Your task to perform on an android device: open a bookmark in the chrome app Image 0: 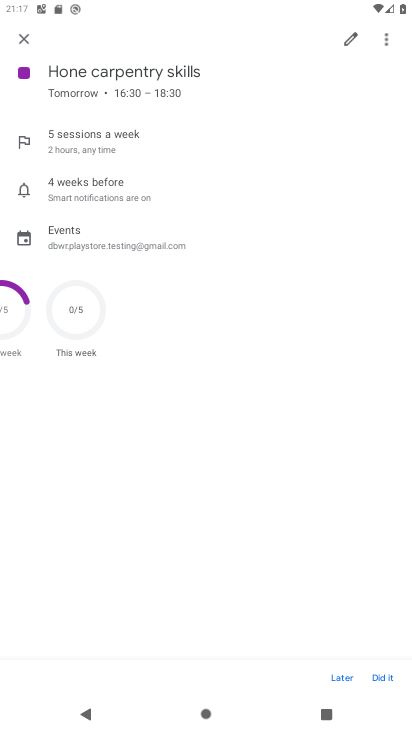
Step 0: press home button
Your task to perform on an android device: open a bookmark in the chrome app Image 1: 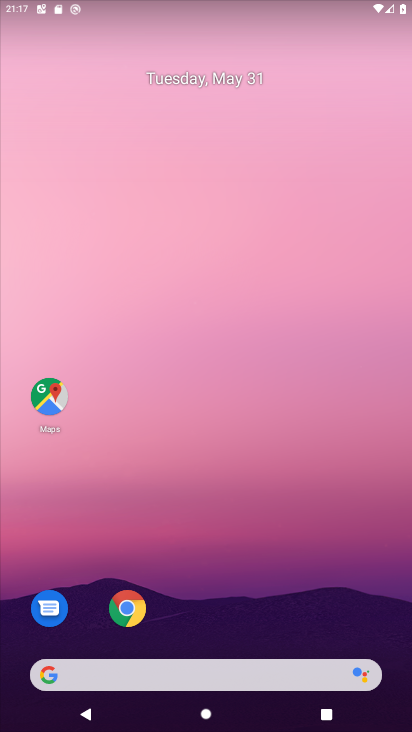
Step 1: click (126, 610)
Your task to perform on an android device: open a bookmark in the chrome app Image 2: 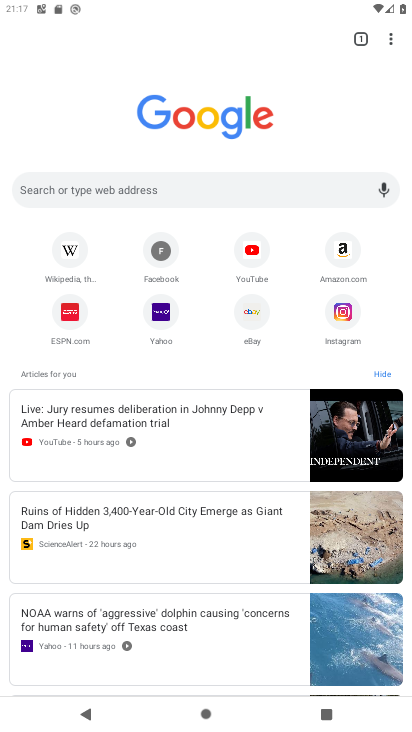
Step 2: click (392, 42)
Your task to perform on an android device: open a bookmark in the chrome app Image 3: 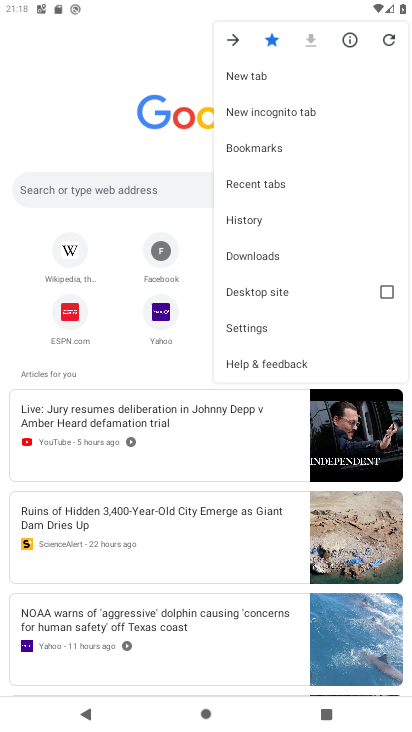
Step 3: click (268, 149)
Your task to perform on an android device: open a bookmark in the chrome app Image 4: 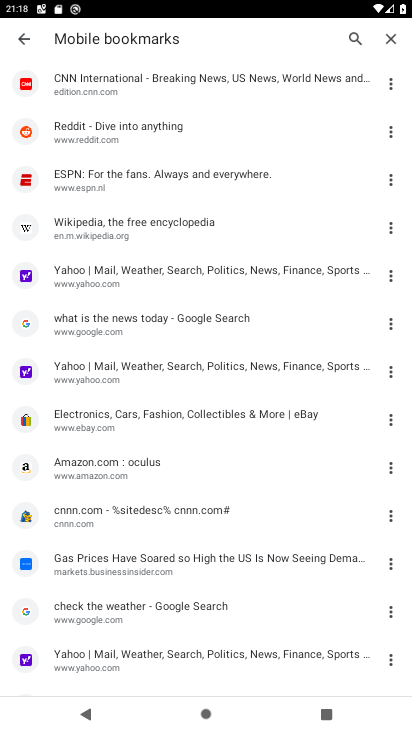
Step 4: task complete